Your task to perform on an android device: set an alarm Image 0: 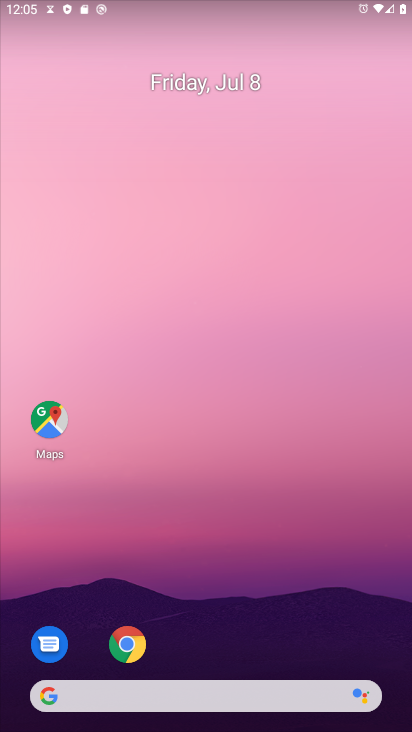
Step 0: drag from (246, 642) to (311, 52)
Your task to perform on an android device: set an alarm Image 1: 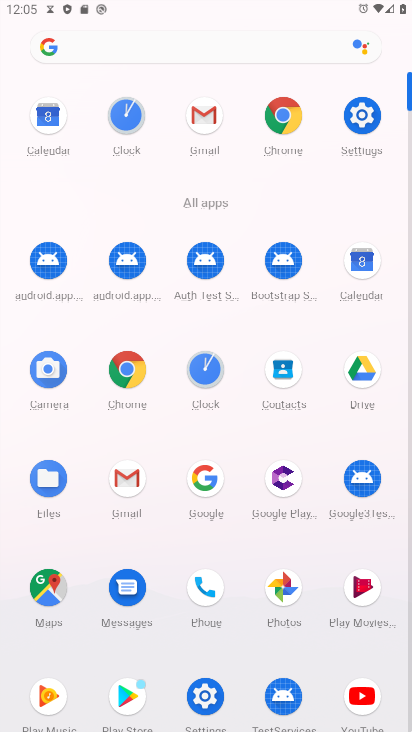
Step 1: click (204, 374)
Your task to perform on an android device: set an alarm Image 2: 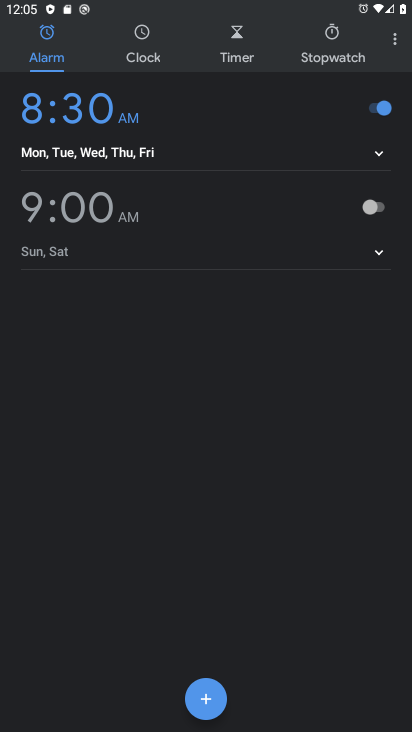
Step 2: click (130, 204)
Your task to perform on an android device: set an alarm Image 3: 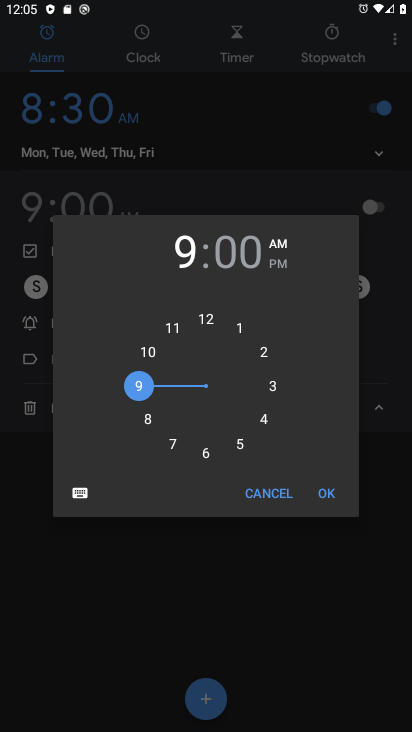
Step 3: click (207, 321)
Your task to perform on an android device: set an alarm Image 4: 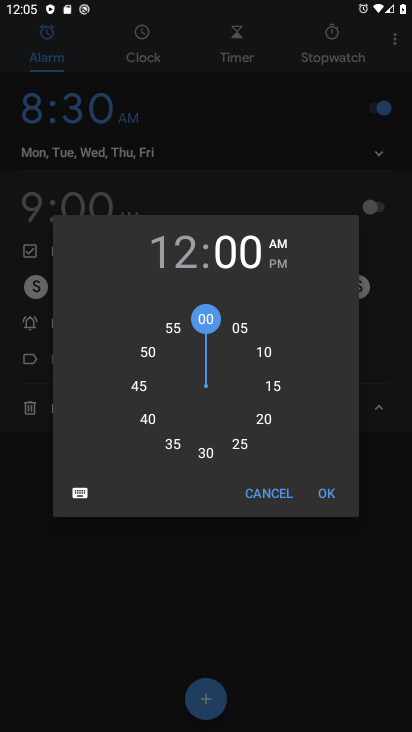
Step 4: click (202, 452)
Your task to perform on an android device: set an alarm Image 5: 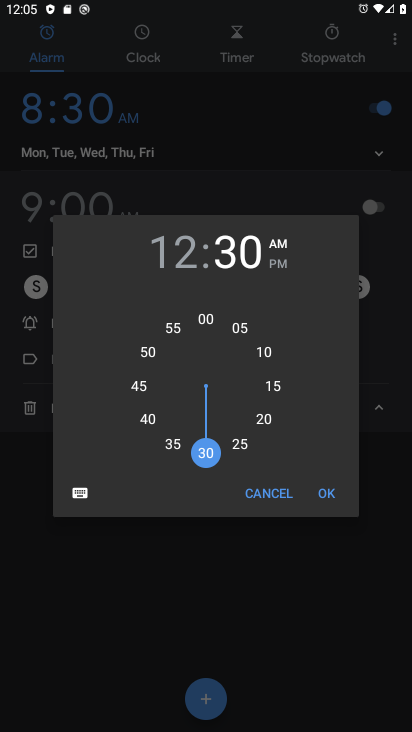
Step 5: click (281, 267)
Your task to perform on an android device: set an alarm Image 6: 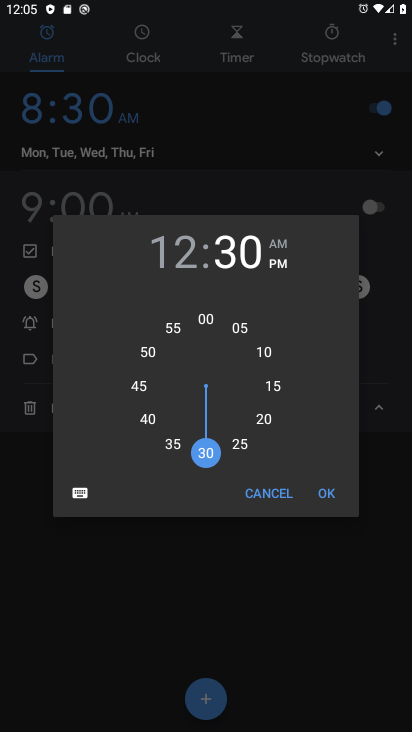
Step 6: click (327, 492)
Your task to perform on an android device: set an alarm Image 7: 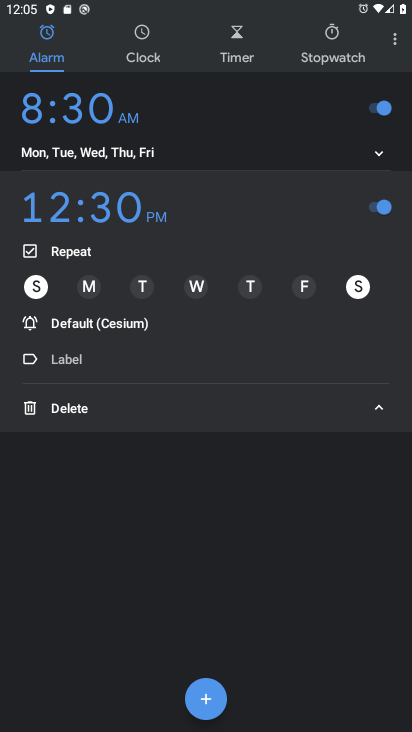
Step 7: task complete